Your task to perform on an android device: turn off wifi Image 0: 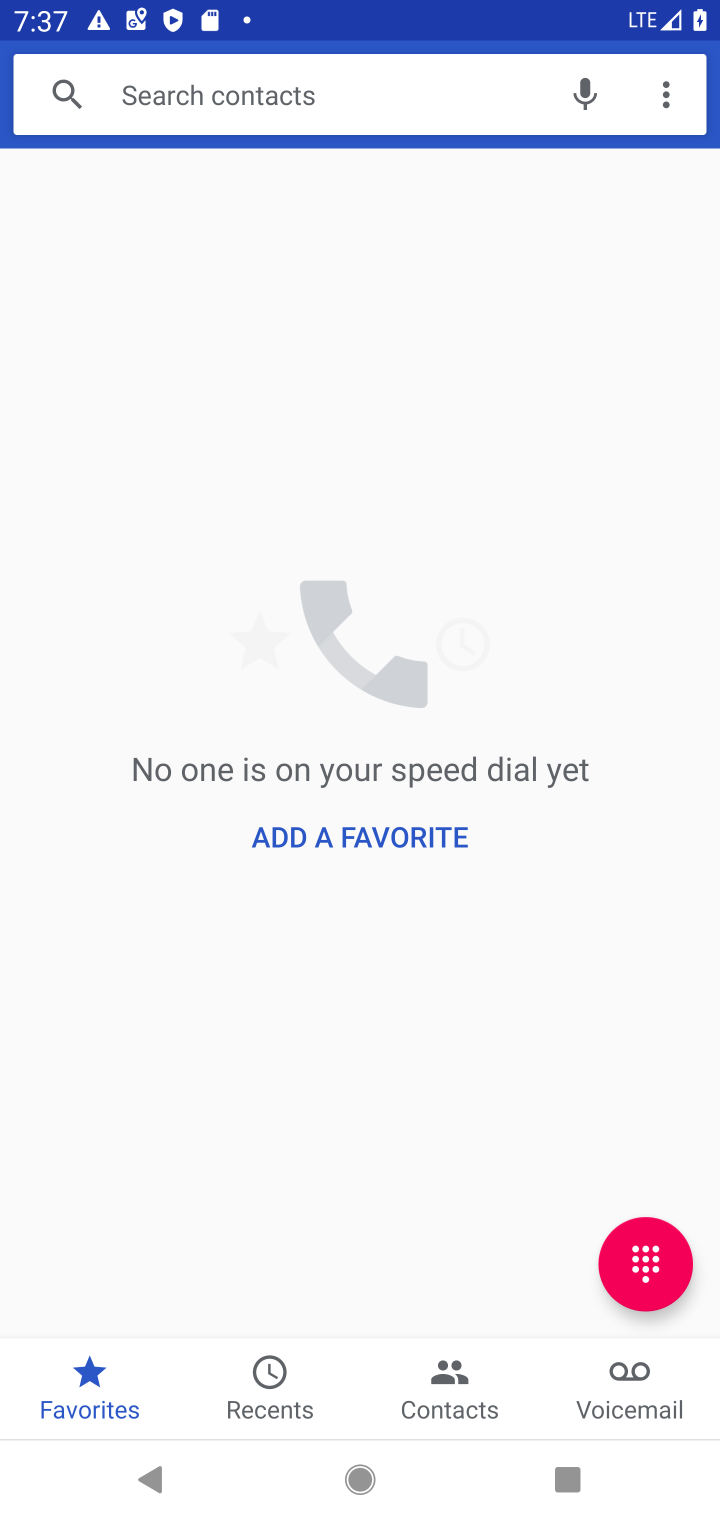
Step 0: press home button
Your task to perform on an android device: turn off wifi Image 1: 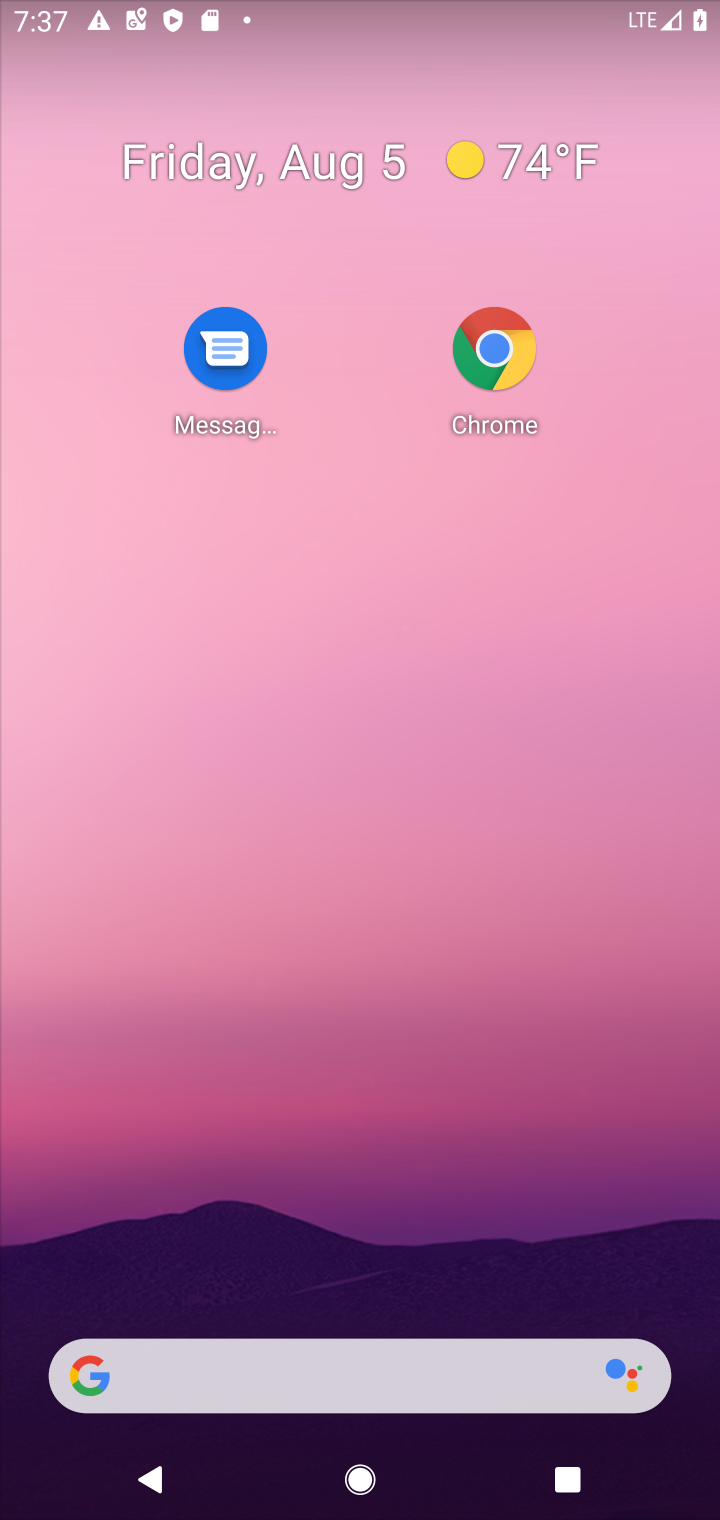
Step 1: drag from (438, 1413) to (395, 524)
Your task to perform on an android device: turn off wifi Image 2: 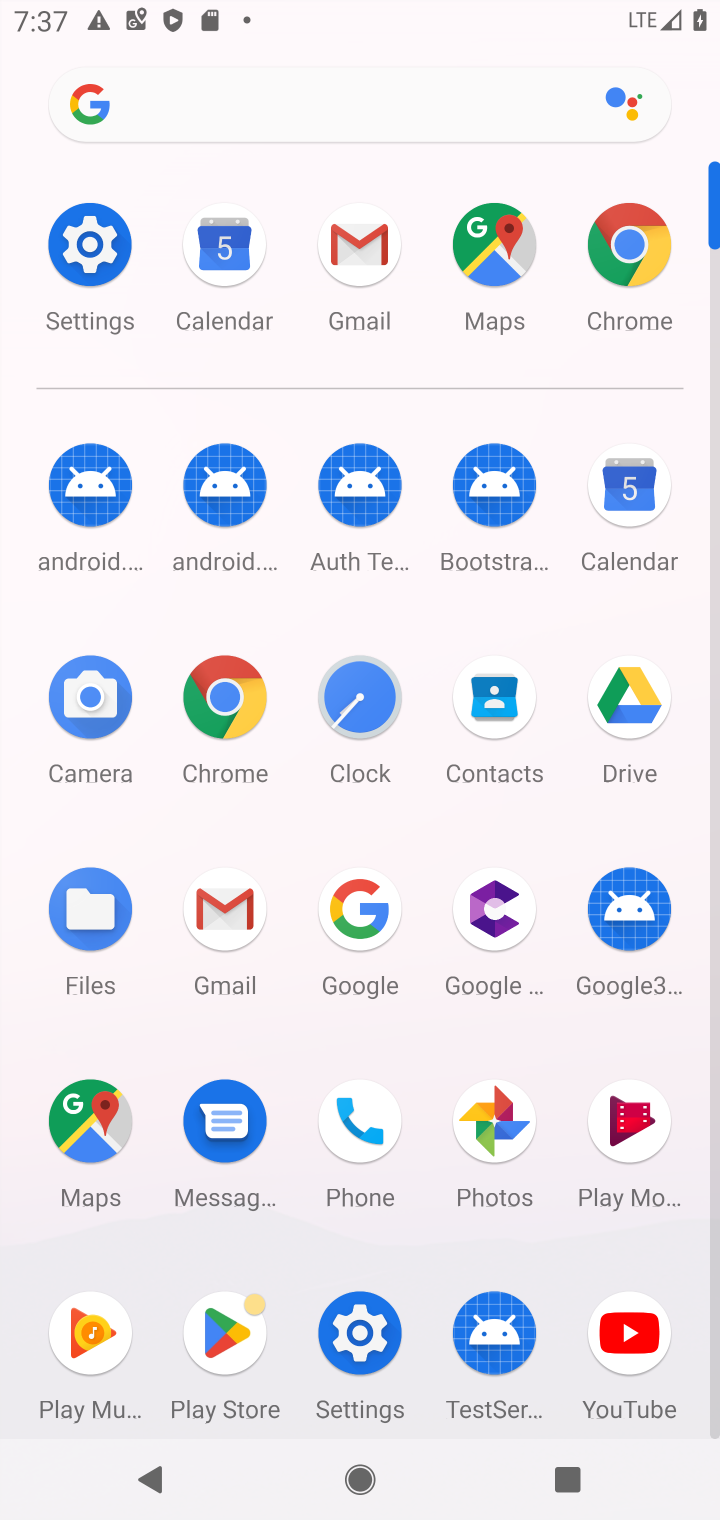
Step 2: click (107, 279)
Your task to perform on an android device: turn off wifi Image 3: 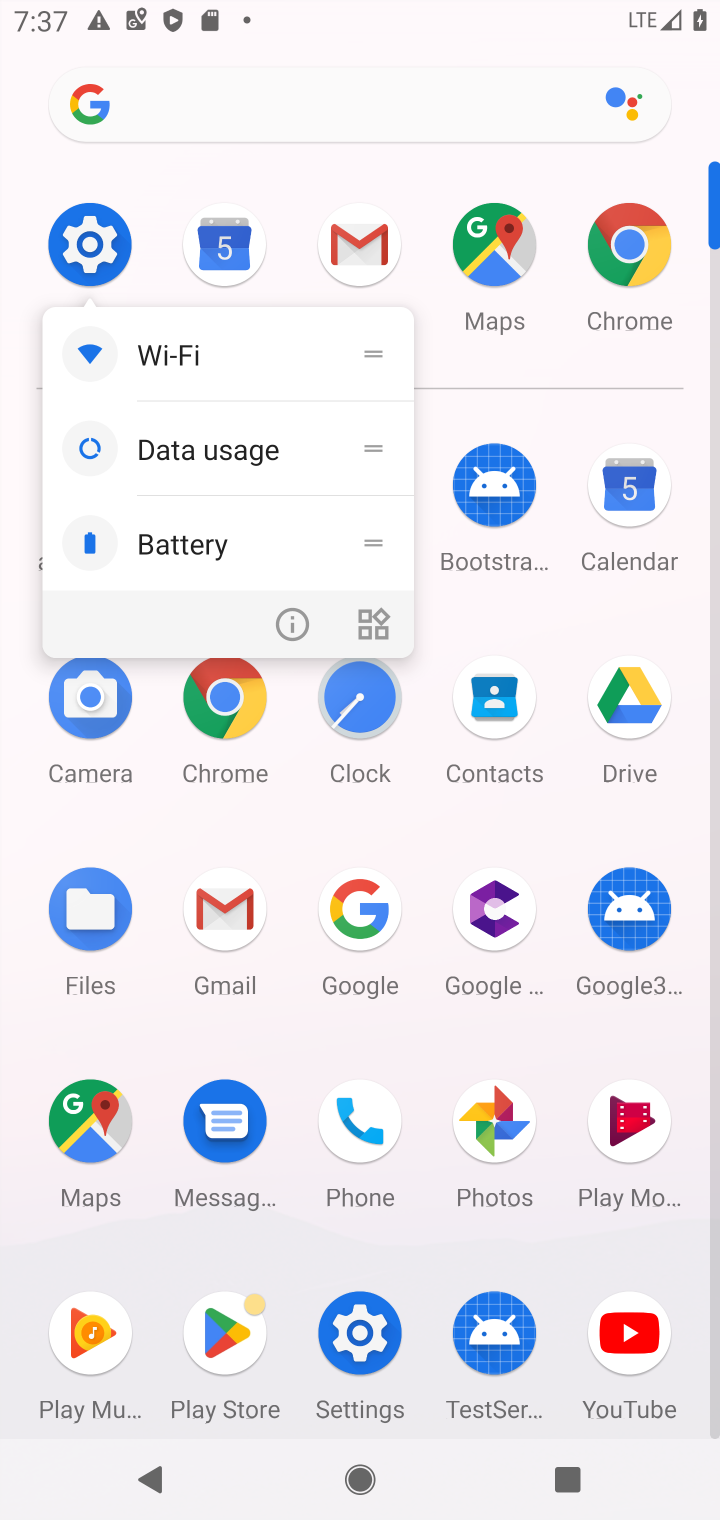
Step 3: click (78, 260)
Your task to perform on an android device: turn off wifi Image 4: 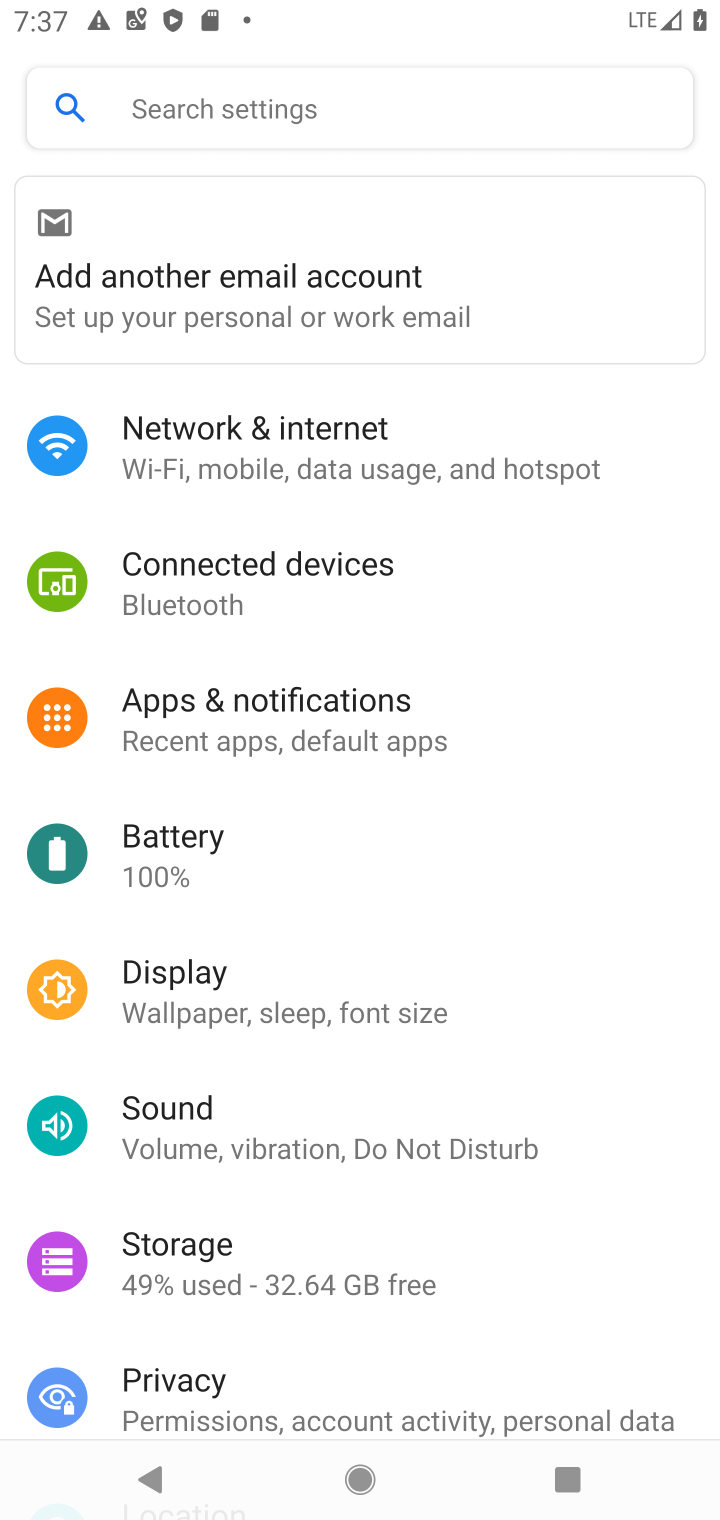
Step 4: click (222, 422)
Your task to perform on an android device: turn off wifi Image 5: 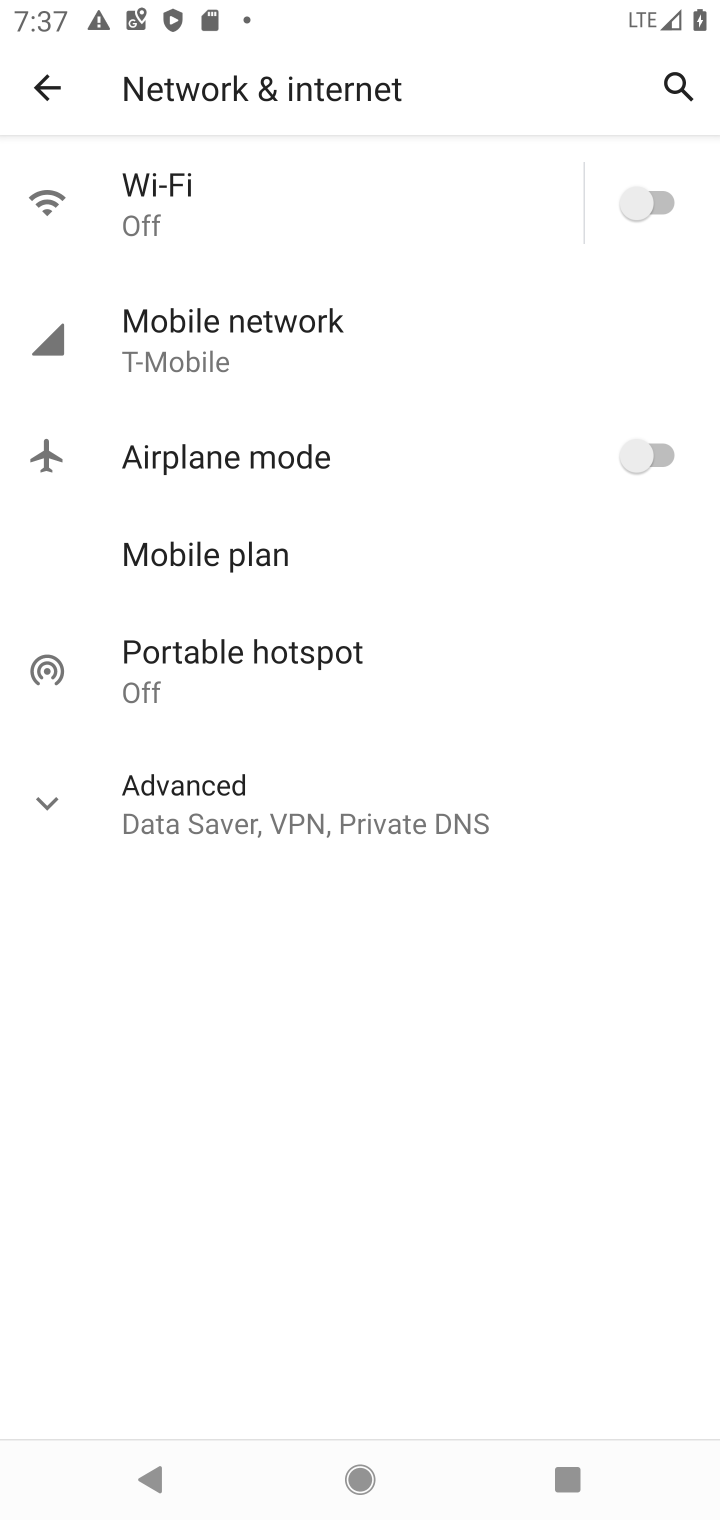
Step 5: click (626, 201)
Your task to perform on an android device: turn off wifi Image 6: 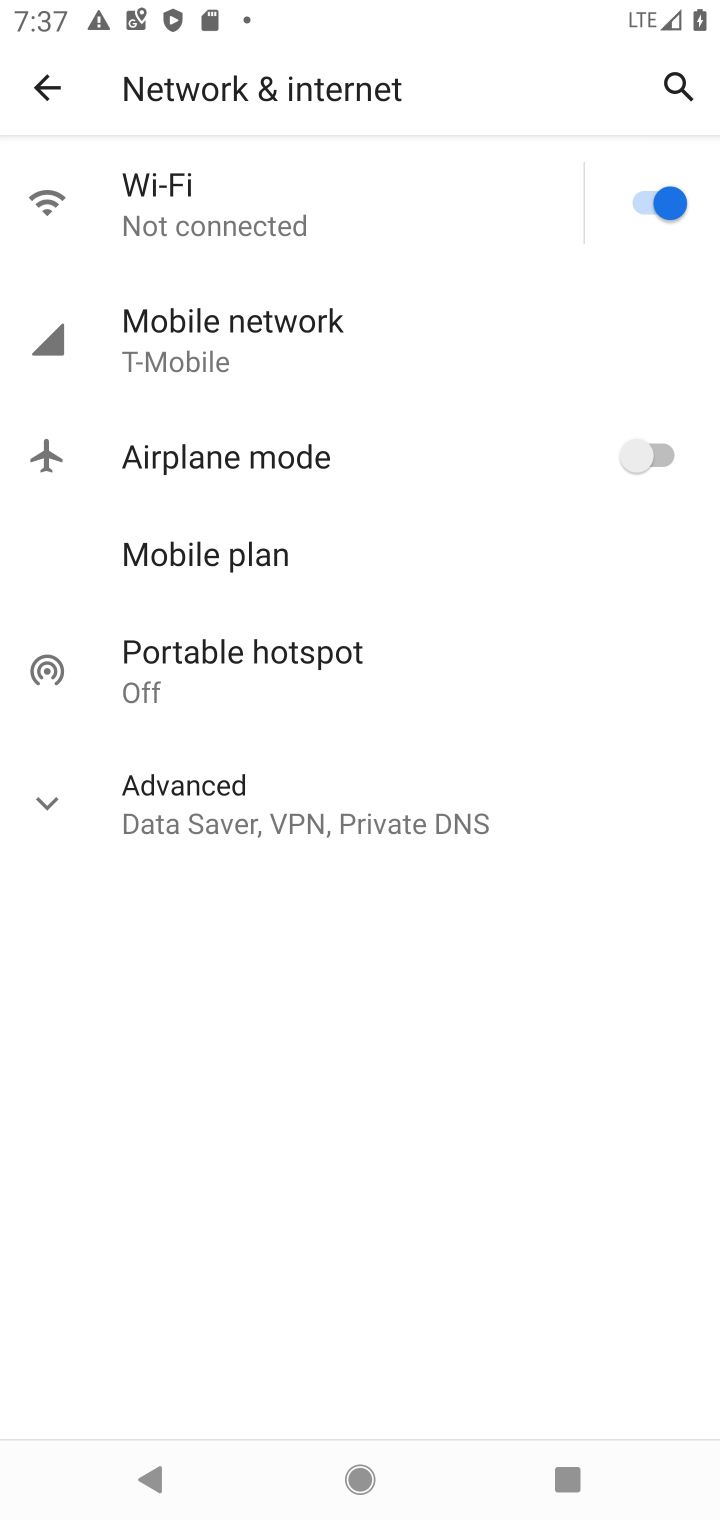
Step 6: click (626, 201)
Your task to perform on an android device: turn off wifi Image 7: 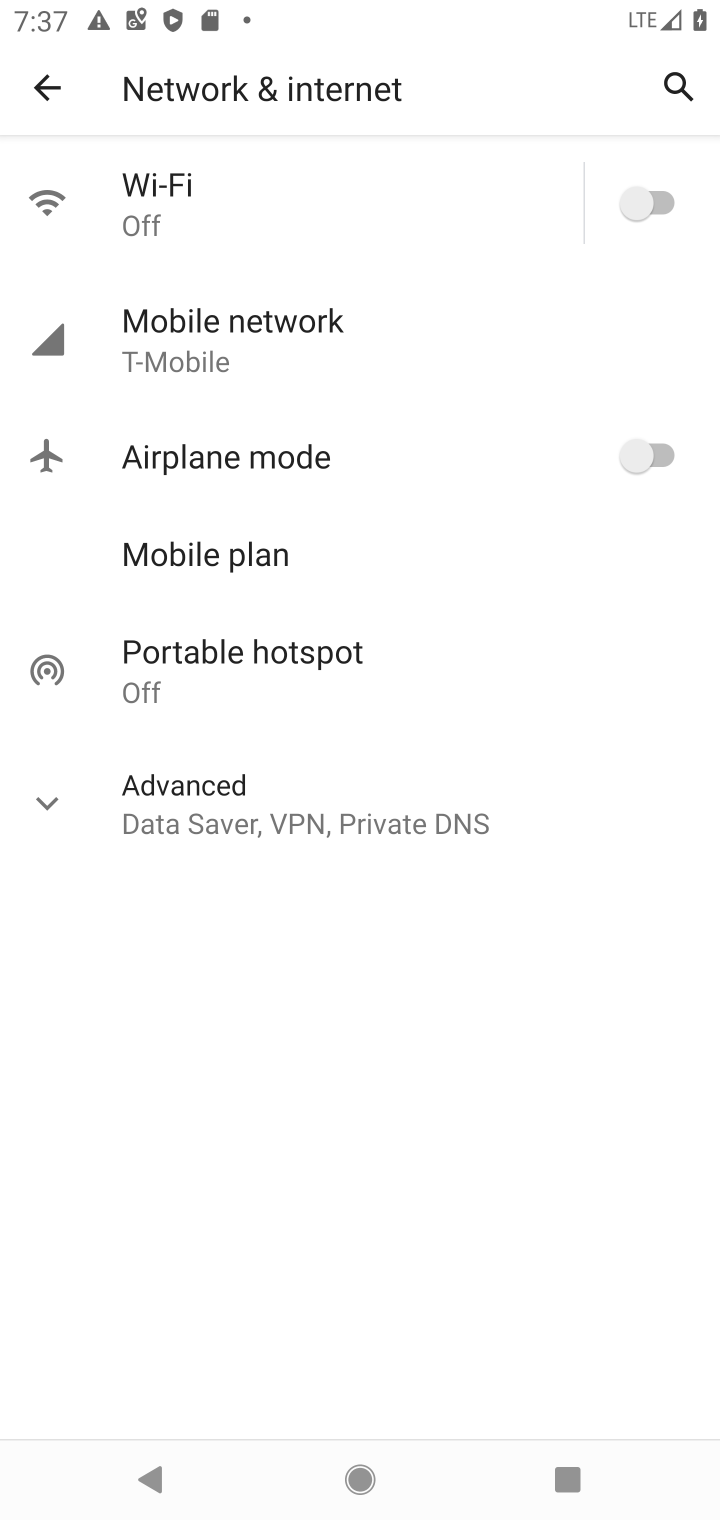
Step 7: task complete